Your task to perform on an android device: change keyboard looks Image 0: 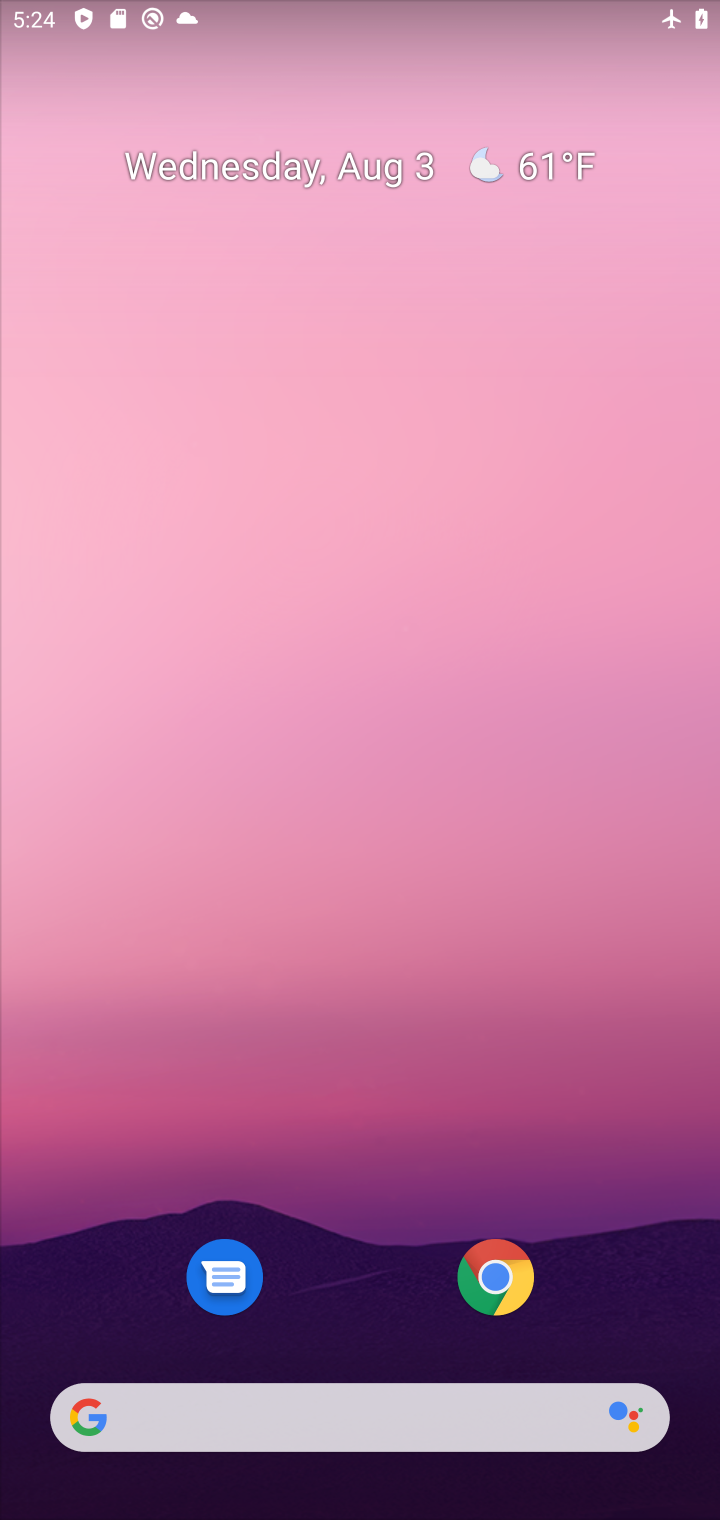
Step 0: press back button
Your task to perform on an android device: change keyboard looks Image 1: 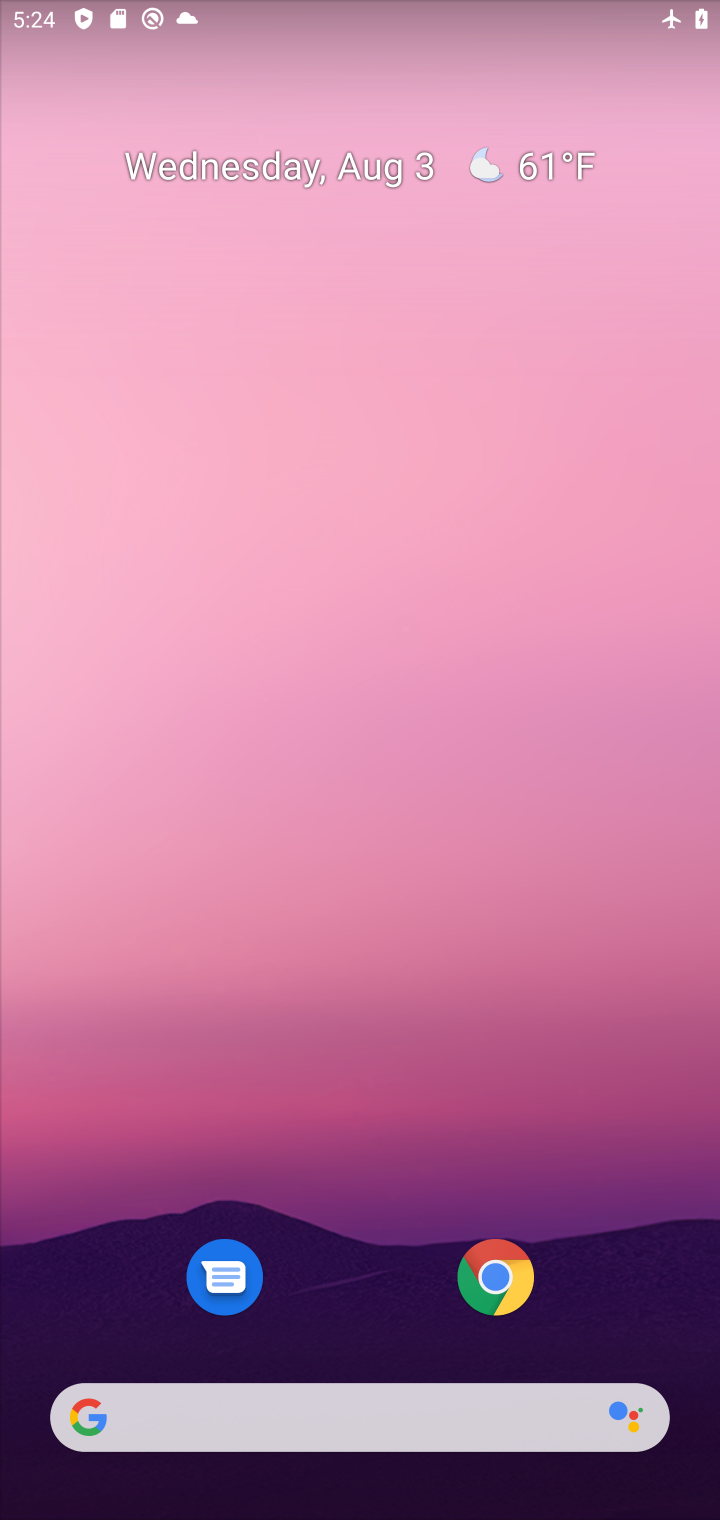
Step 1: drag from (375, 1188) to (405, 32)
Your task to perform on an android device: change keyboard looks Image 2: 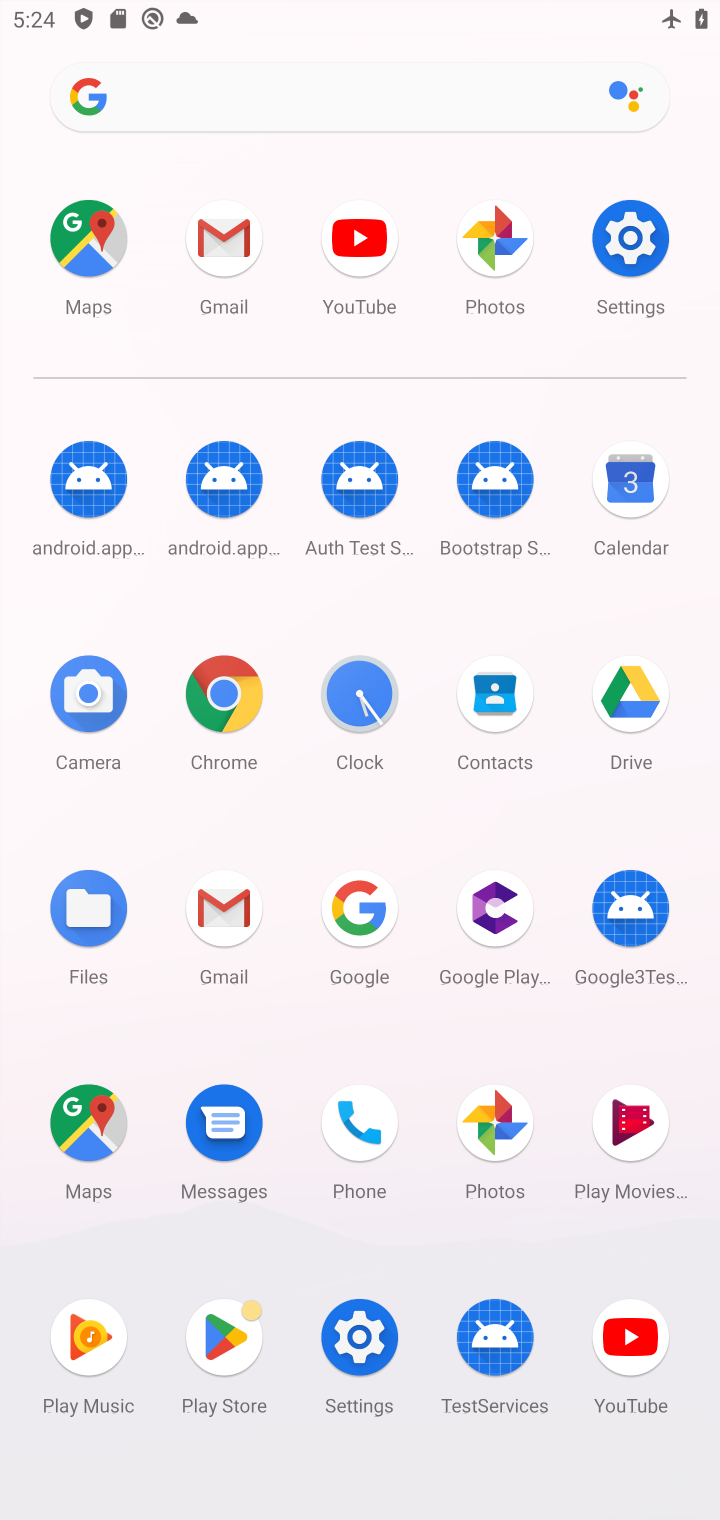
Step 2: click (647, 241)
Your task to perform on an android device: change keyboard looks Image 3: 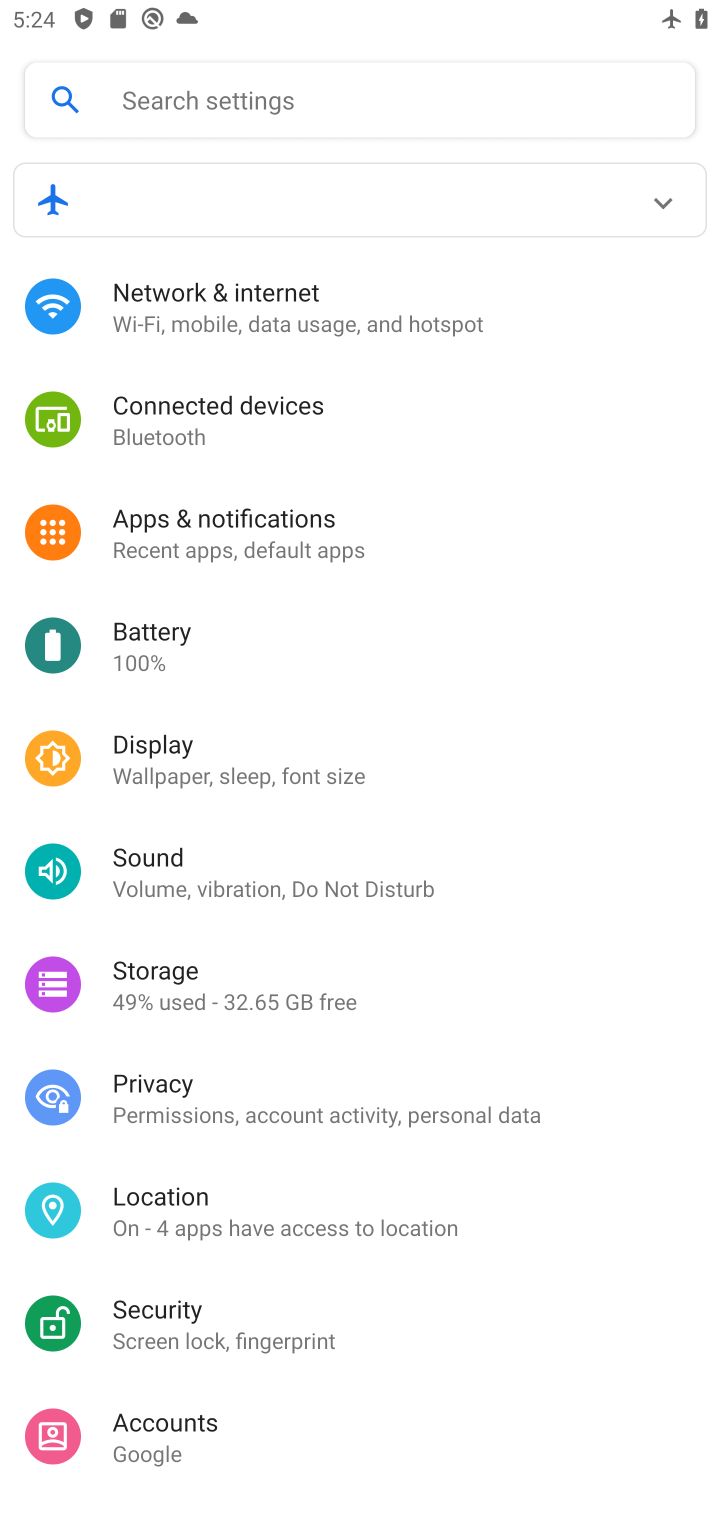
Step 3: drag from (176, 1280) to (293, 96)
Your task to perform on an android device: change keyboard looks Image 4: 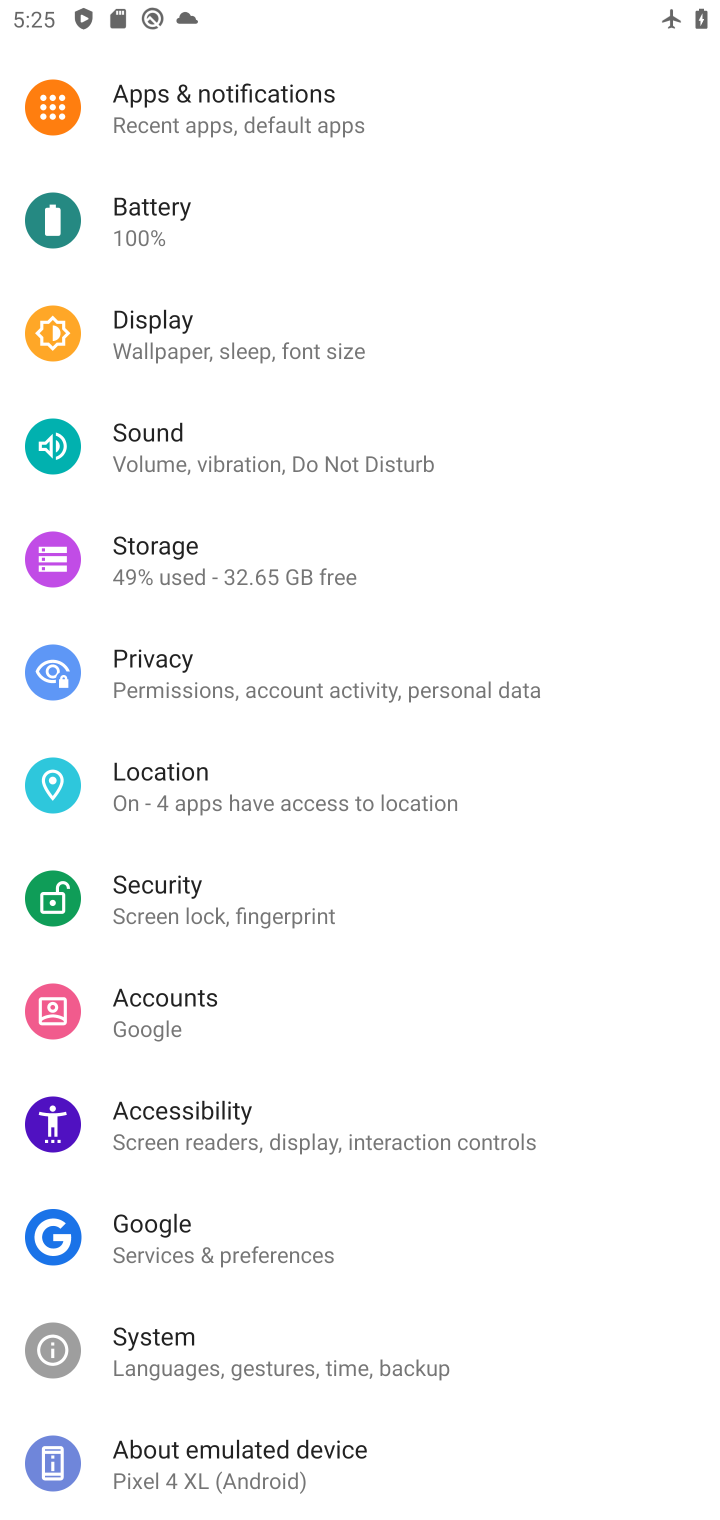
Step 4: click (113, 1351)
Your task to perform on an android device: change keyboard looks Image 5: 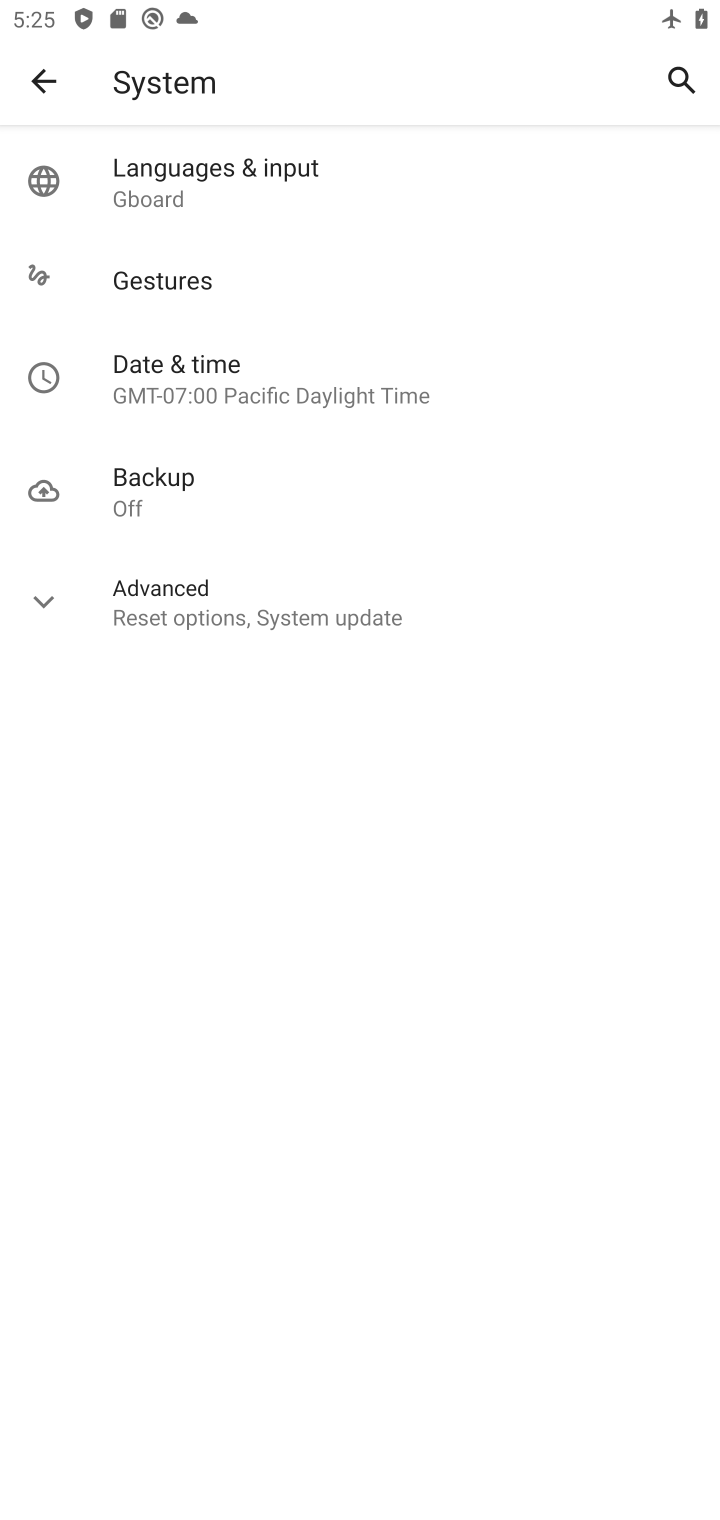
Step 5: click (287, 174)
Your task to perform on an android device: change keyboard looks Image 6: 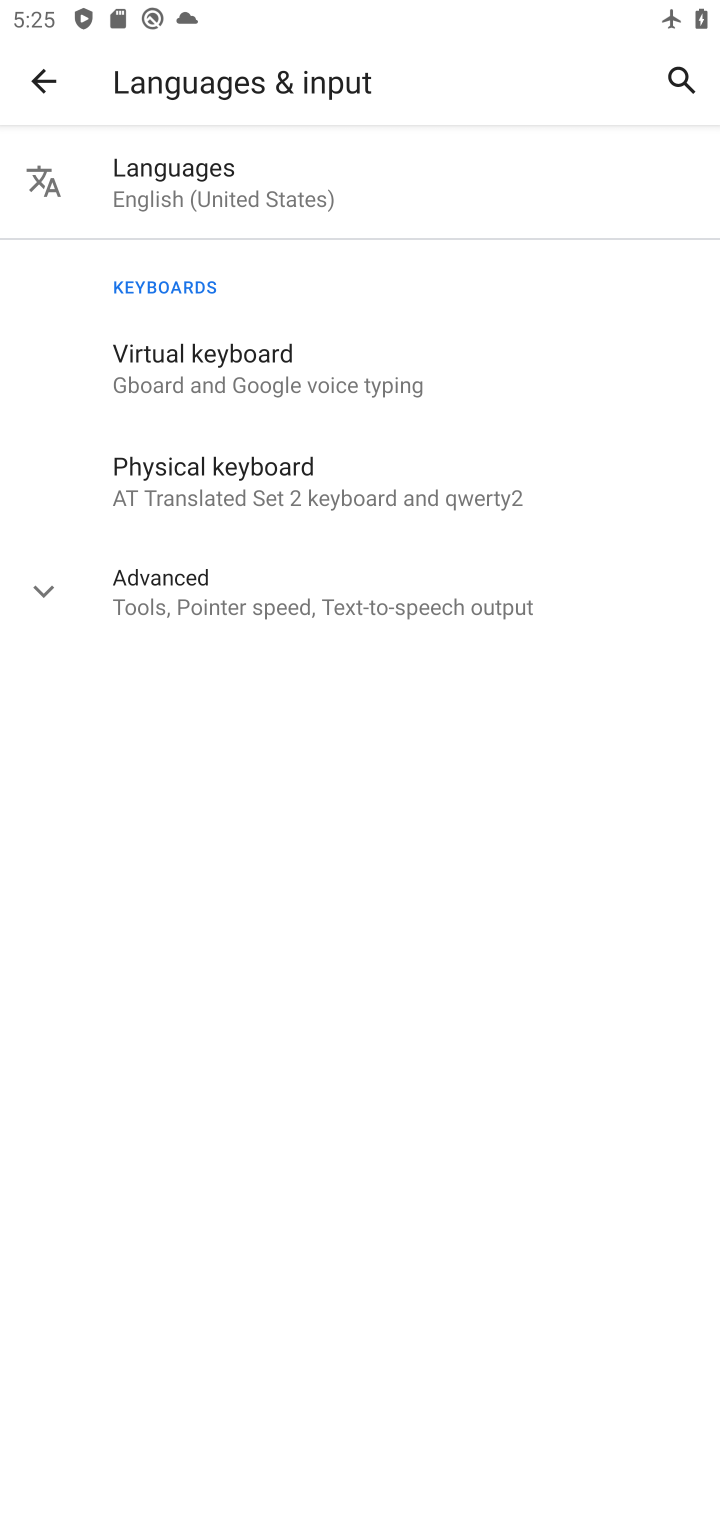
Step 6: click (237, 364)
Your task to perform on an android device: change keyboard looks Image 7: 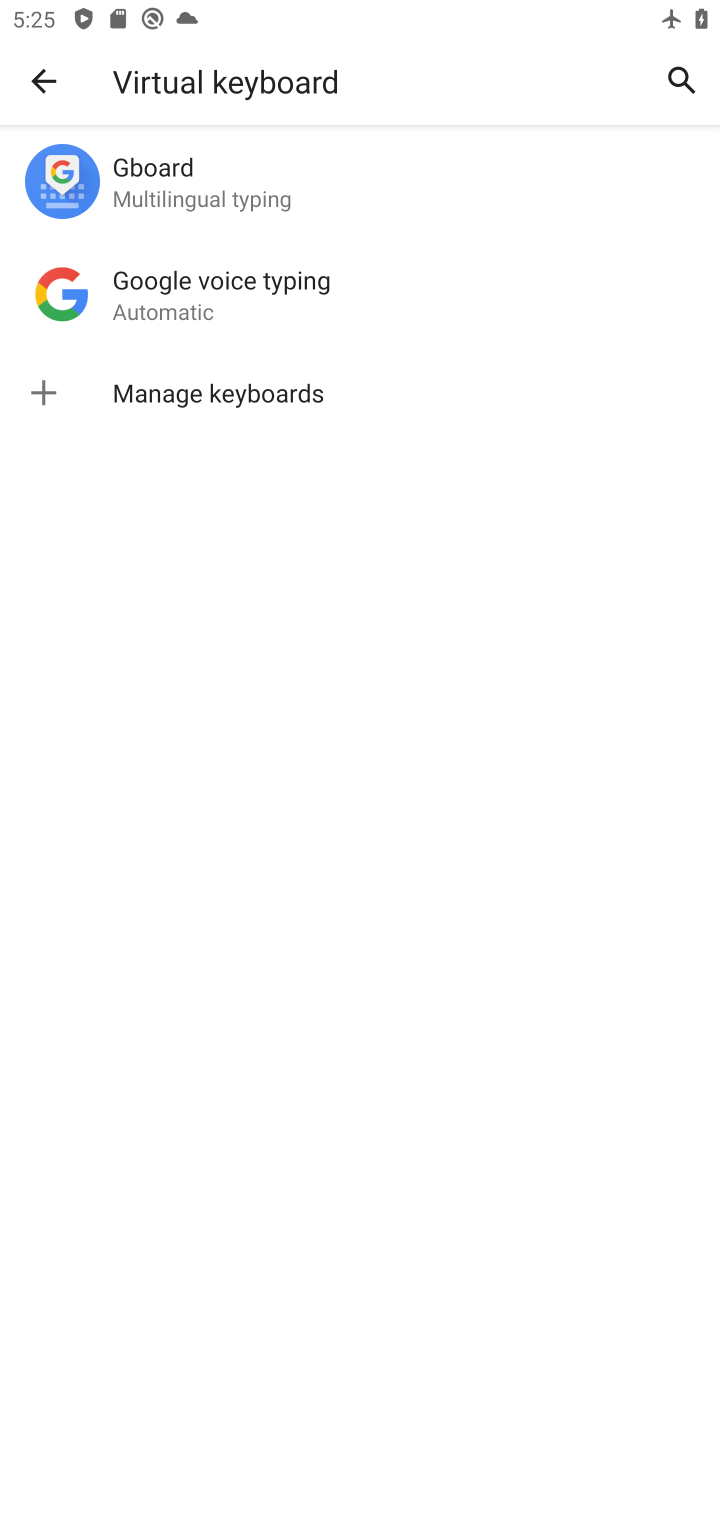
Step 7: click (228, 180)
Your task to perform on an android device: change keyboard looks Image 8: 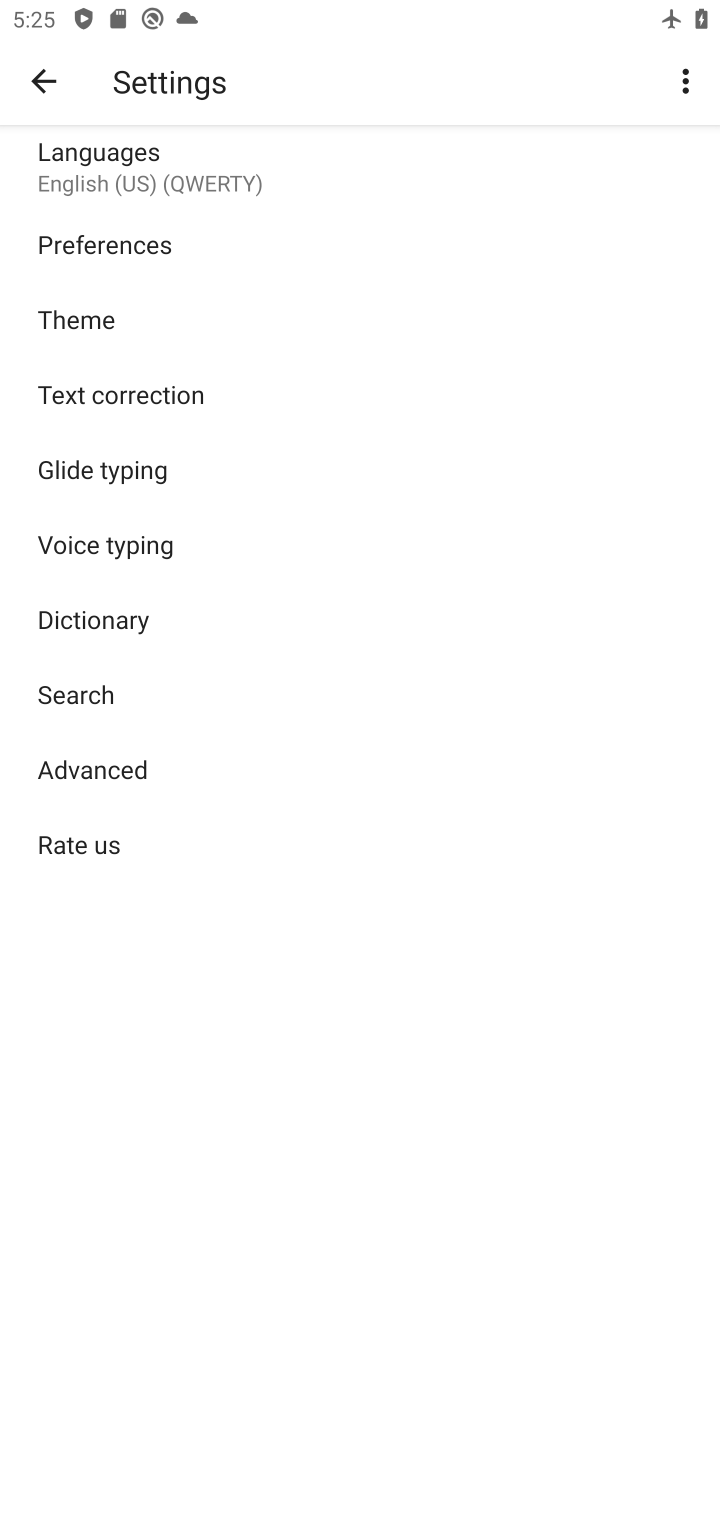
Step 8: click (142, 192)
Your task to perform on an android device: change keyboard looks Image 9: 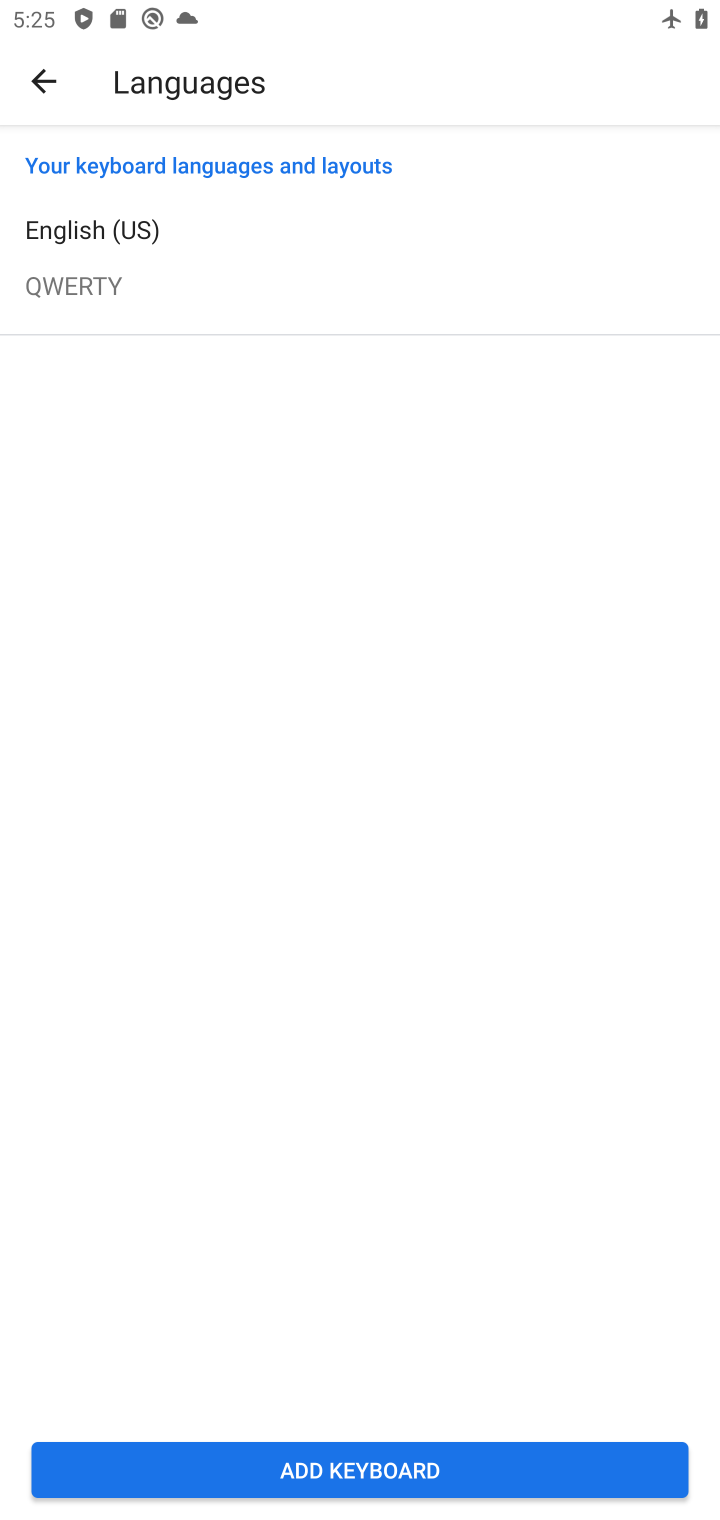
Step 9: click (50, 81)
Your task to perform on an android device: change keyboard looks Image 10: 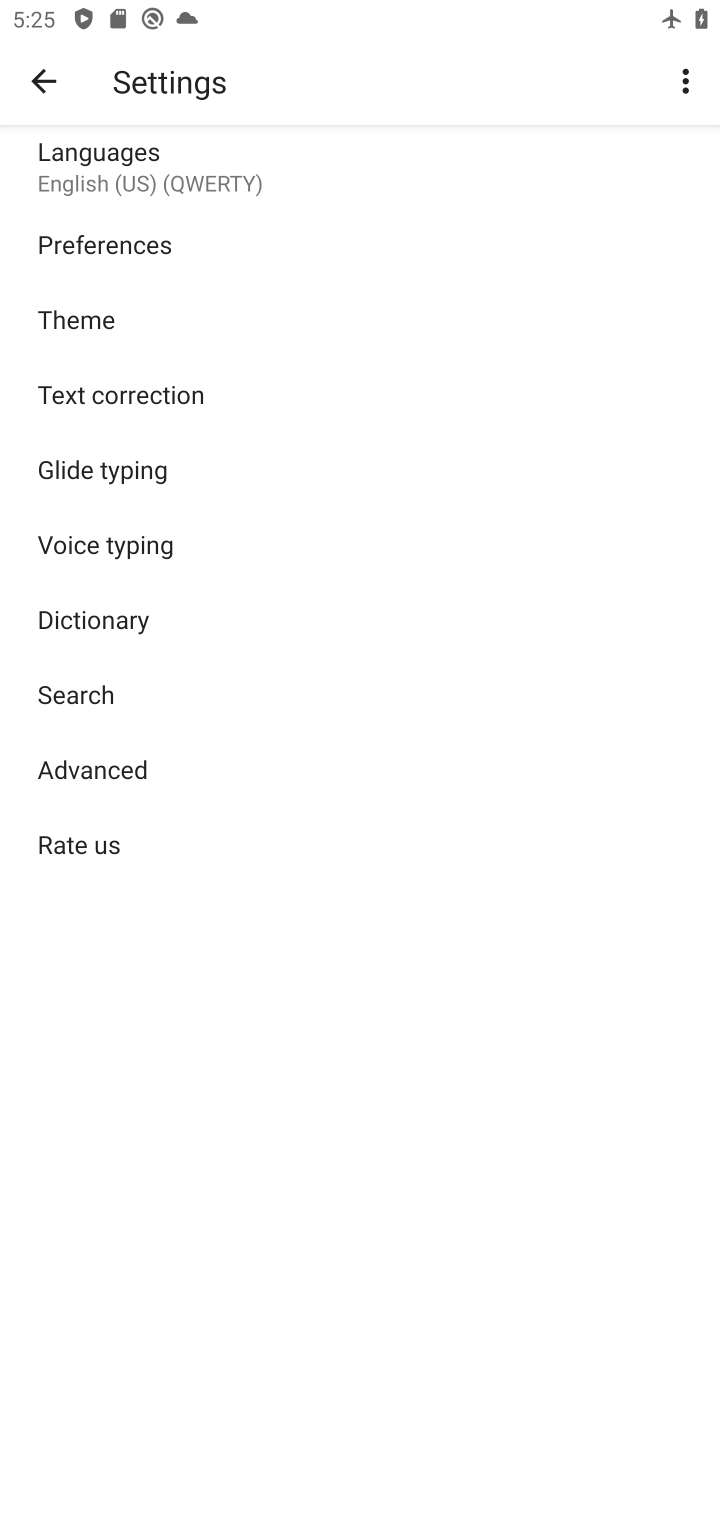
Step 10: click (88, 317)
Your task to perform on an android device: change keyboard looks Image 11: 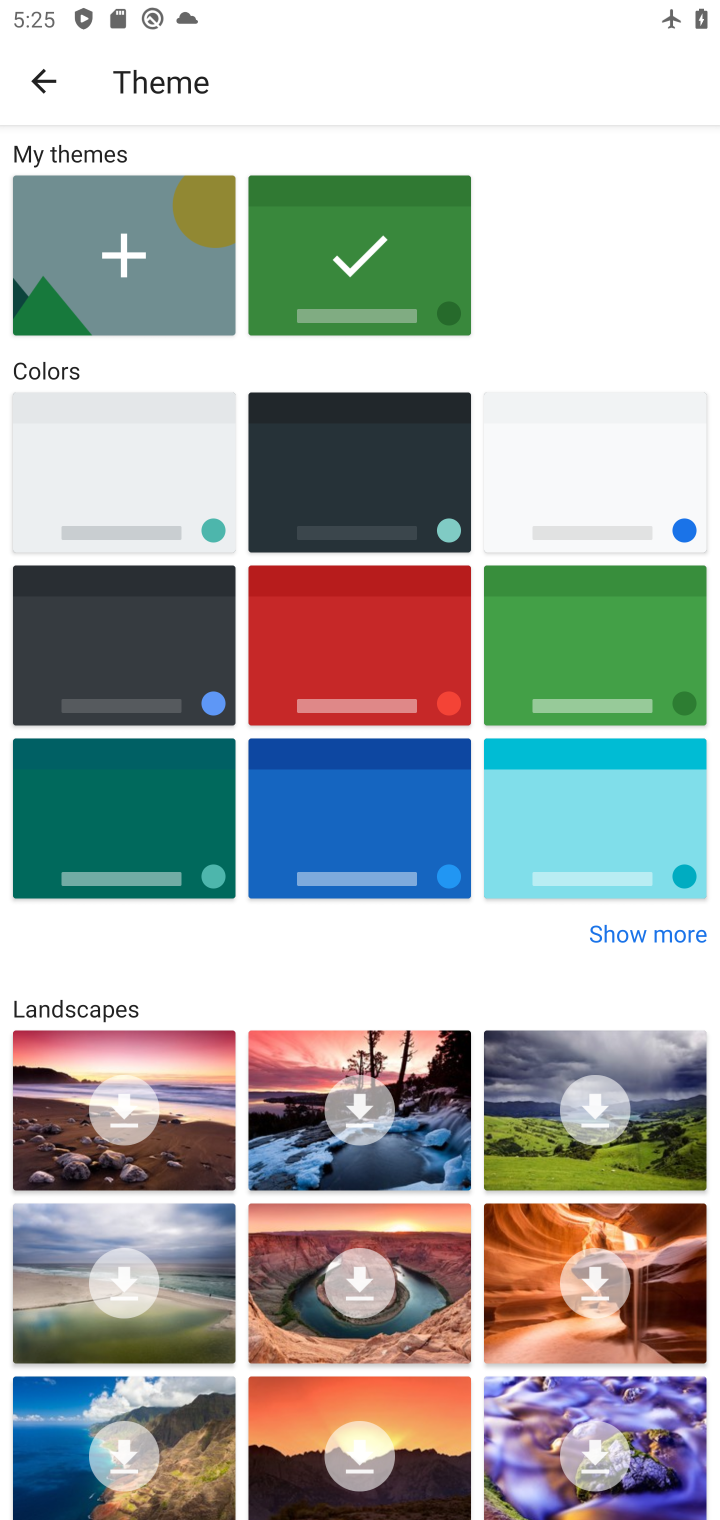
Step 11: click (354, 629)
Your task to perform on an android device: change keyboard looks Image 12: 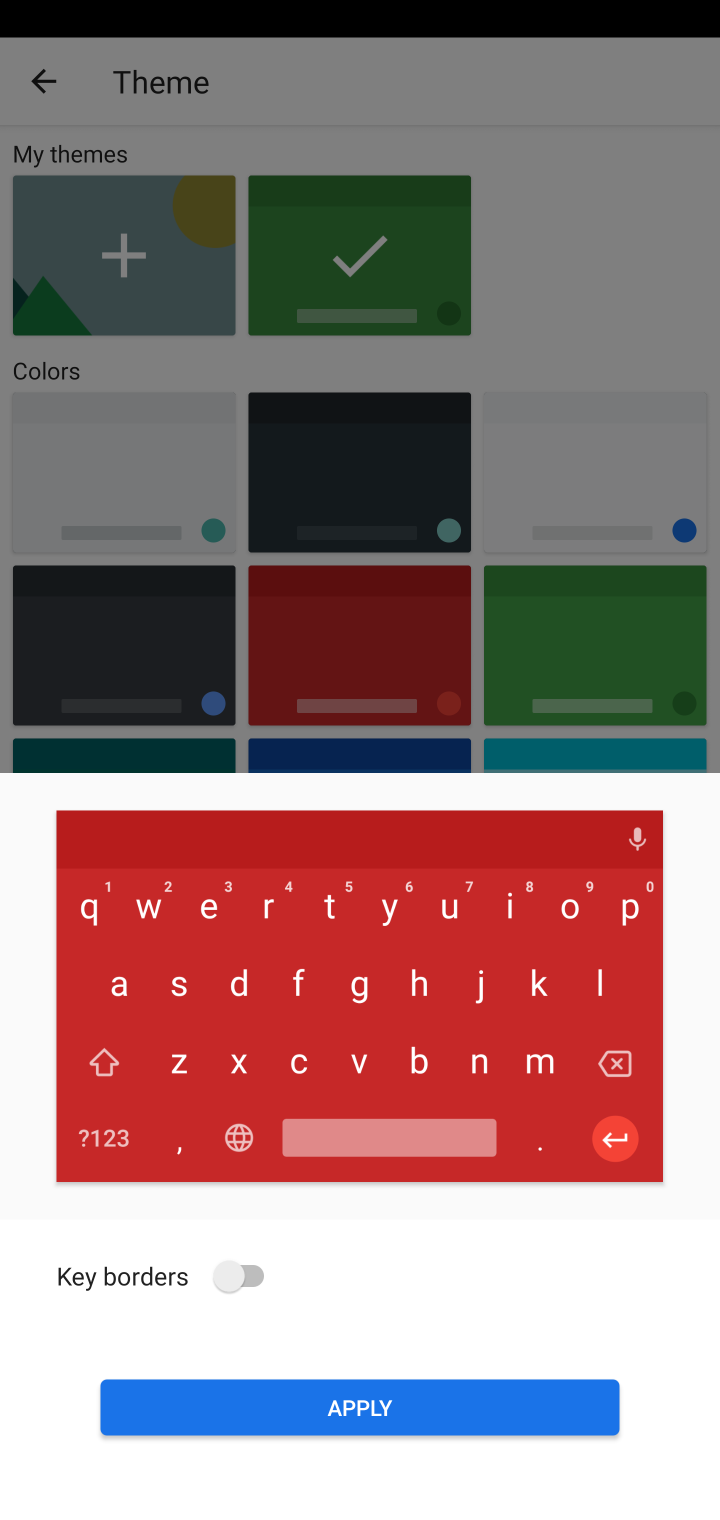
Step 12: click (435, 1397)
Your task to perform on an android device: change keyboard looks Image 13: 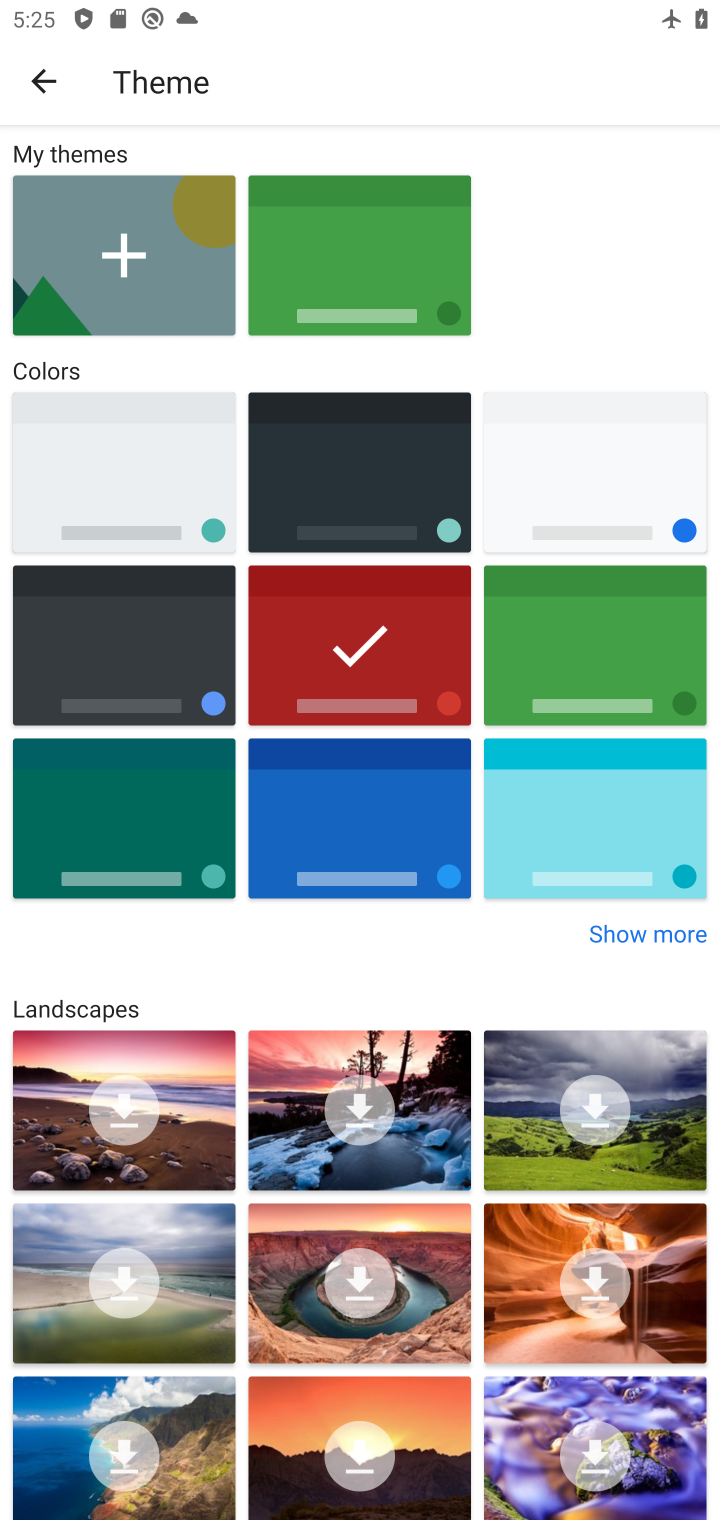
Step 13: task complete